Your task to perform on an android device: move an email to a new category in the gmail app Image 0: 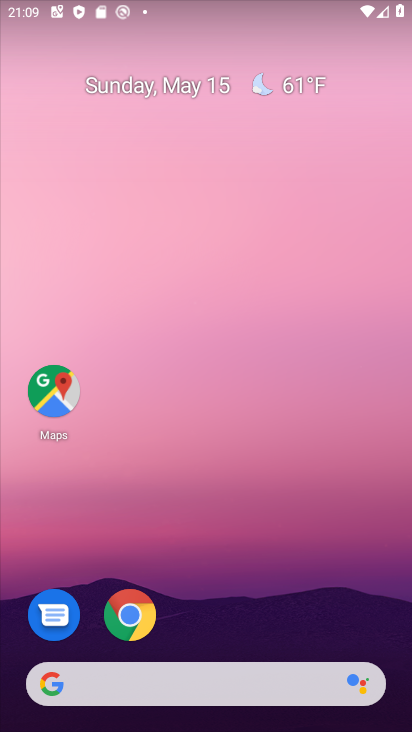
Step 0: drag from (254, 585) to (211, 36)
Your task to perform on an android device: move an email to a new category in the gmail app Image 1: 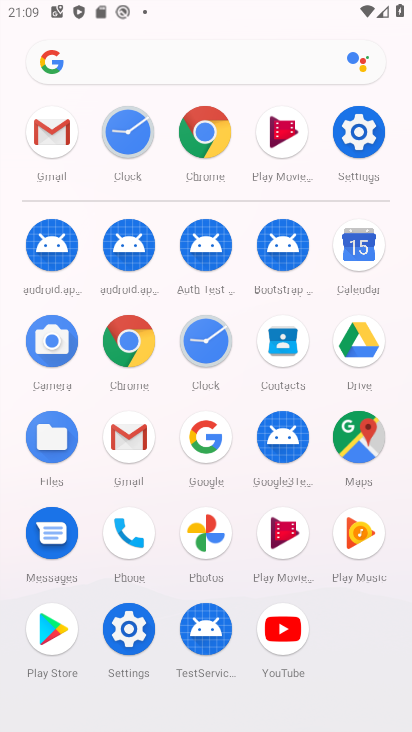
Step 1: click (131, 430)
Your task to perform on an android device: move an email to a new category in the gmail app Image 2: 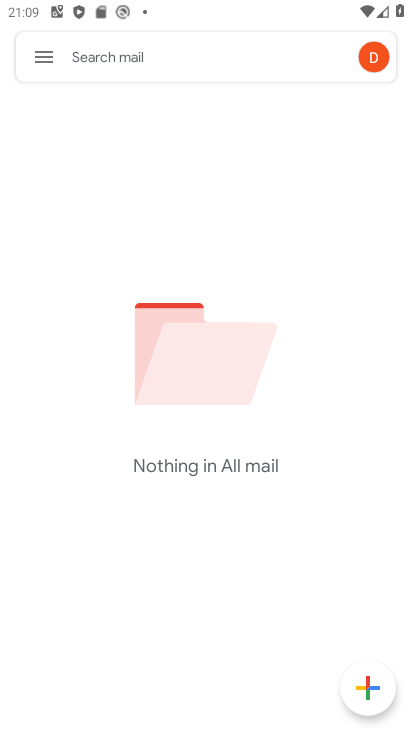
Step 2: click (38, 56)
Your task to perform on an android device: move an email to a new category in the gmail app Image 3: 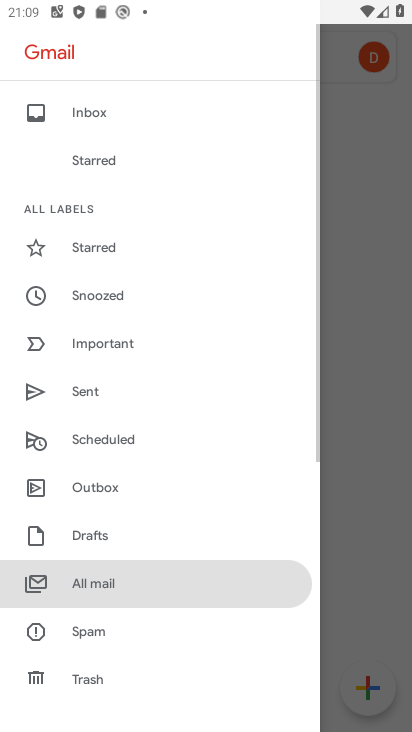
Step 3: drag from (163, 146) to (181, 497)
Your task to perform on an android device: move an email to a new category in the gmail app Image 4: 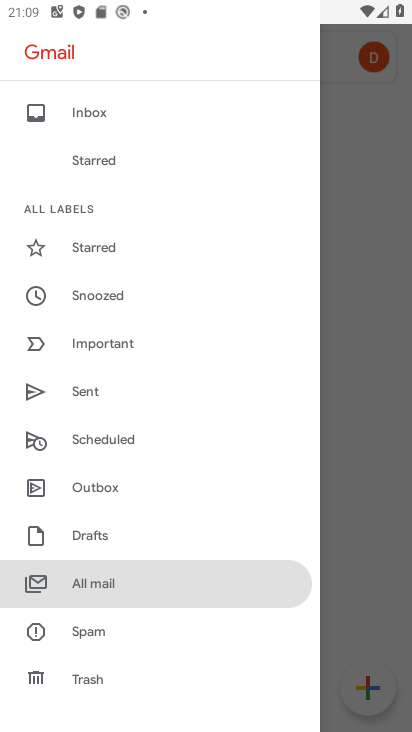
Step 4: click (132, 580)
Your task to perform on an android device: move an email to a new category in the gmail app Image 5: 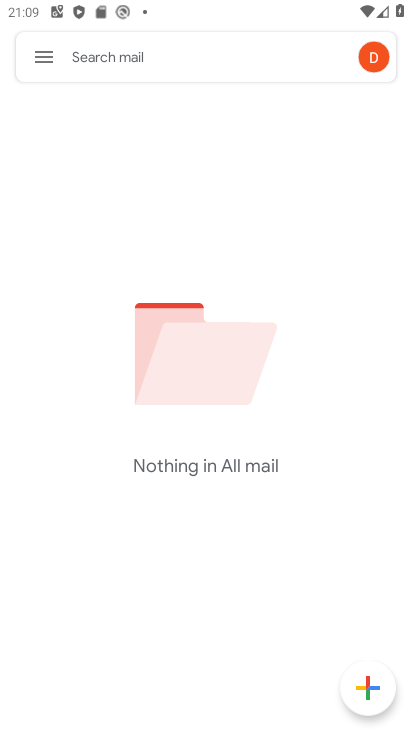
Step 5: click (40, 56)
Your task to perform on an android device: move an email to a new category in the gmail app Image 6: 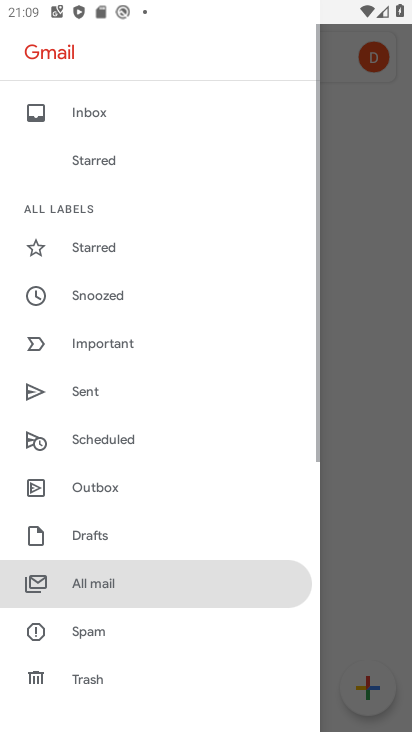
Step 6: drag from (145, 156) to (191, 514)
Your task to perform on an android device: move an email to a new category in the gmail app Image 7: 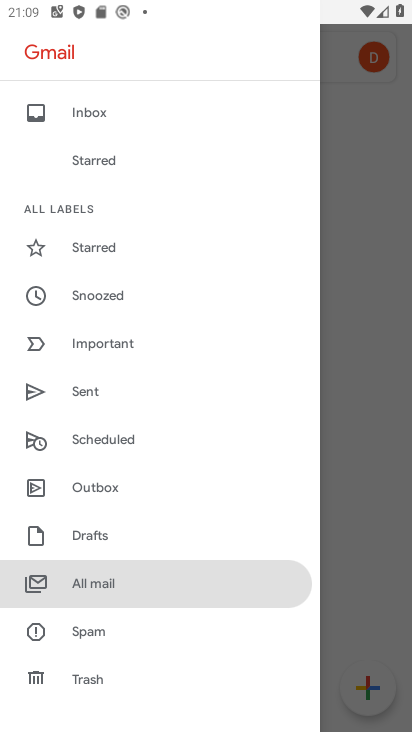
Step 7: click (101, 110)
Your task to perform on an android device: move an email to a new category in the gmail app Image 8: 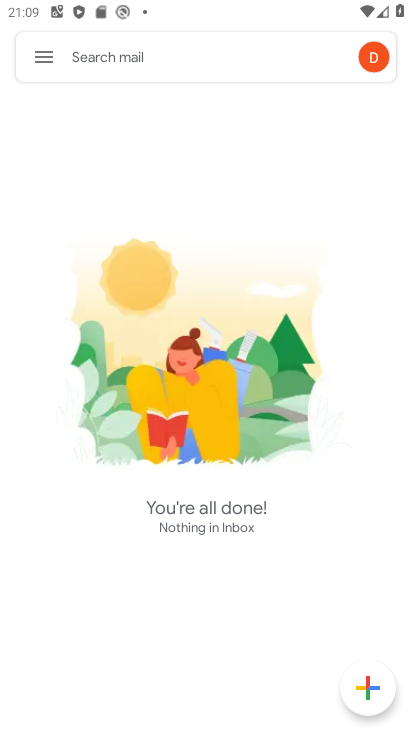
Step 8: click (35, 48)
Your task to perform on an android device: move an email to a new category in the gmail app Image 9: 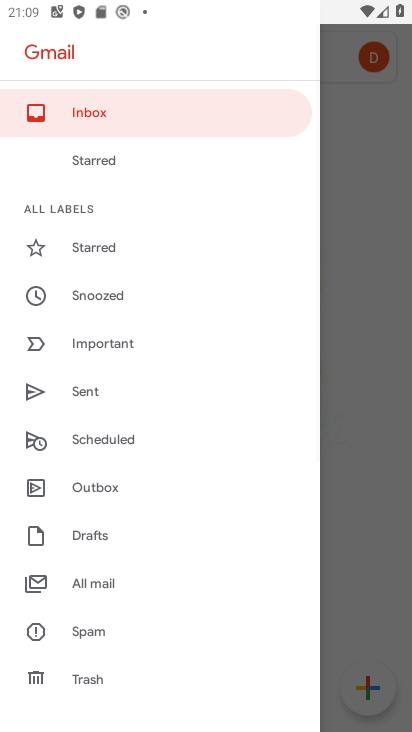
Step 9: click (114, 579)
Your task to perform on an android device: move an email to a new category in the gmail app Image 10: 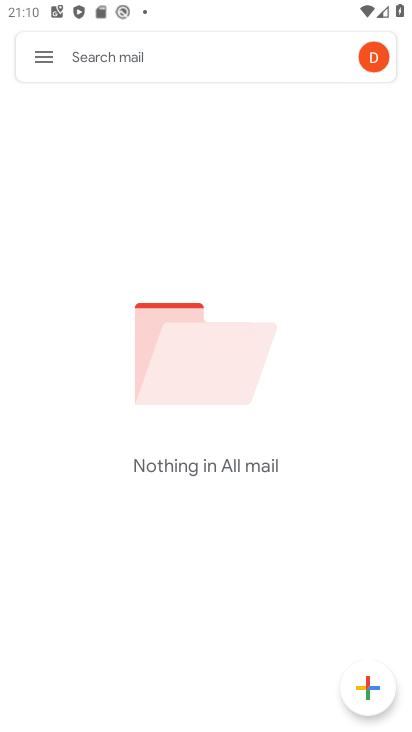
Step 10: task complete